Your task to perform on an android device: Add "dell alienware" to the cart on bestbuy Image 0: 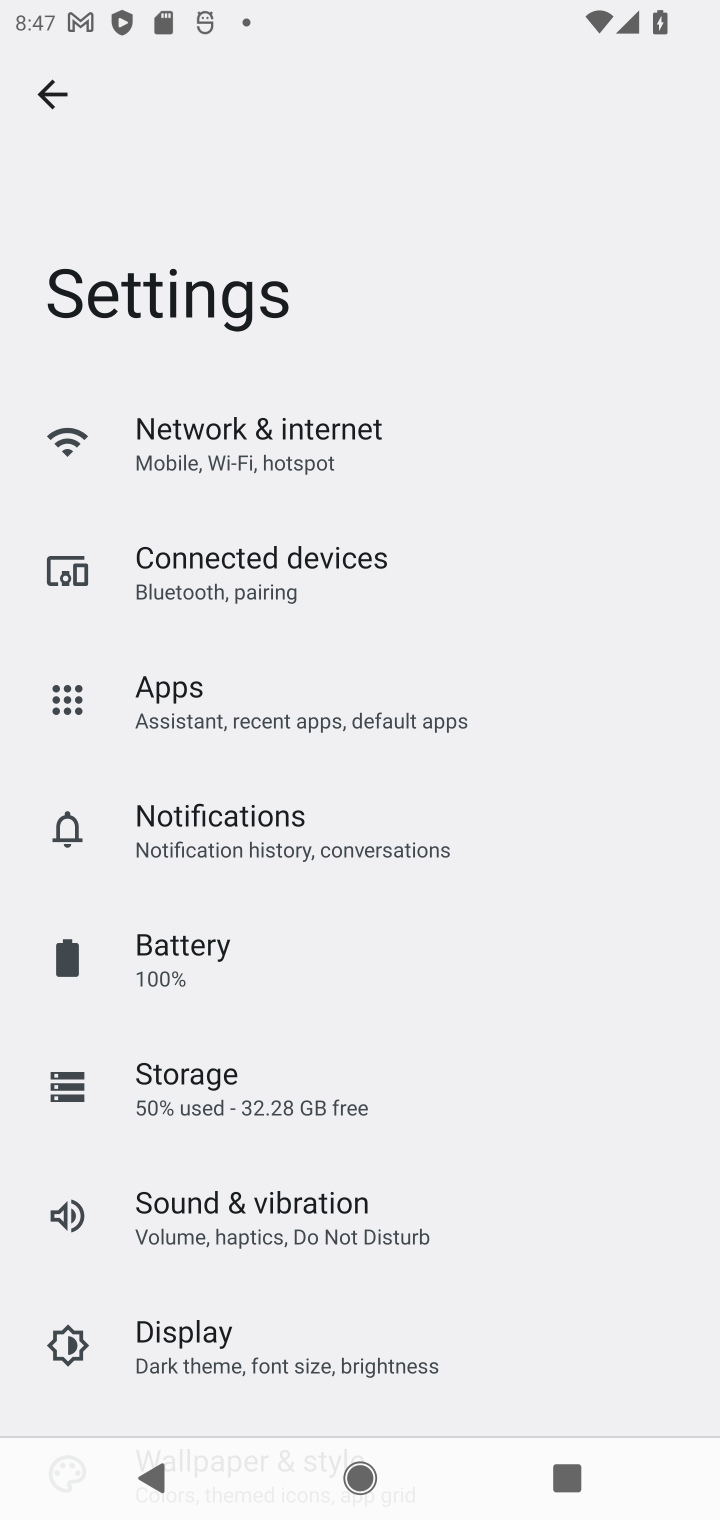
Step 0: press home button
Your task to perform on an android device: Add "dell alienware" to the cart on bestbuy Image 1: 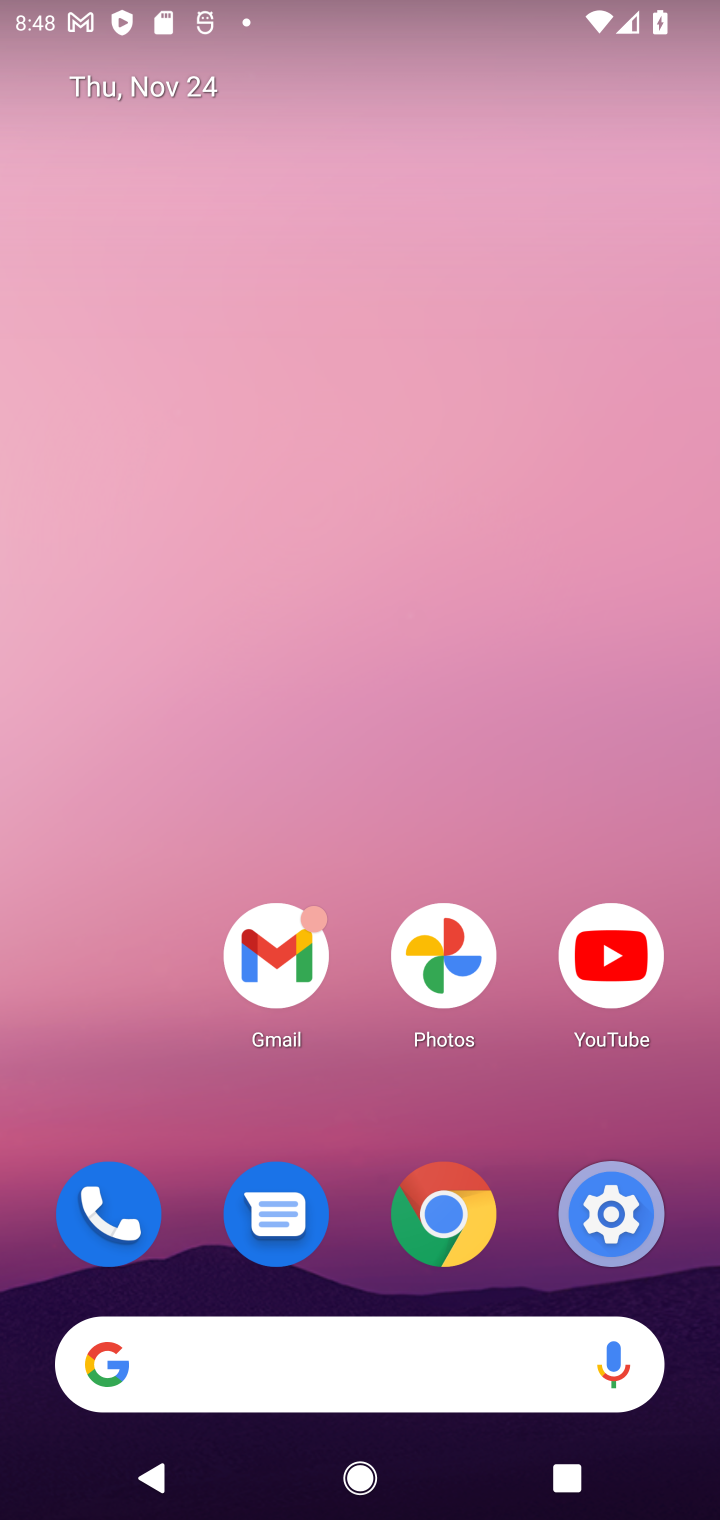
Step 1: task complete